Your task to perform on an android device: turn pop-ups off in chrome Image 0: 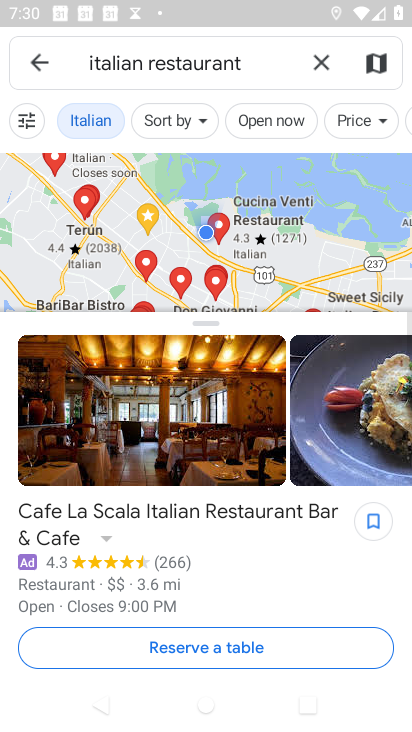
Step 0: press home button
Your task to perform on an android device: turn pop-ups off in chrome Image 1: 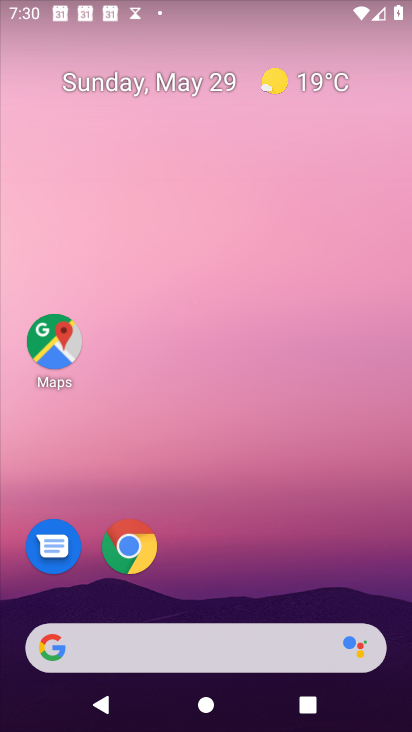
Step 1: click (135, 547)
Your task to perform on an android device: turn pop-ups off in chrome Image 2: 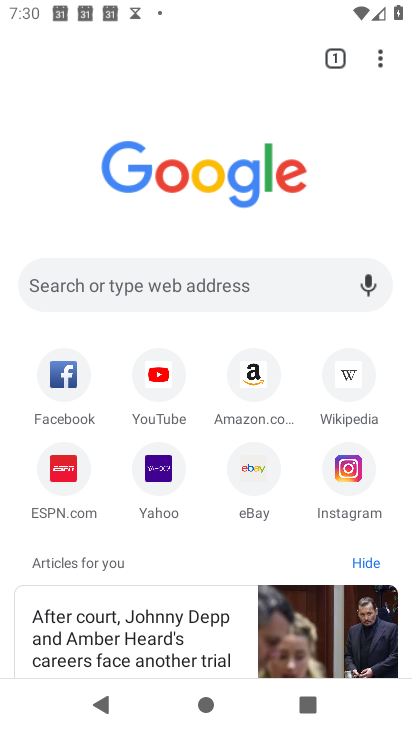
Step 2: click (355, 391)
Your task to perform on an android device: turn pop-ups off in chrome Image 3: 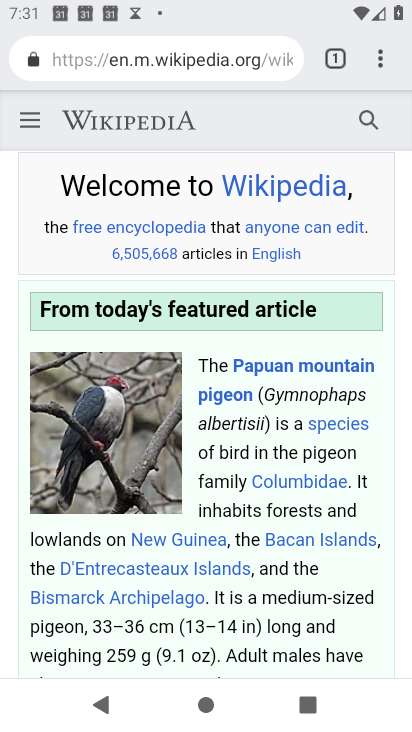
Step 3: task complete